Your task to perform on an android device: set an alarm Image 0: 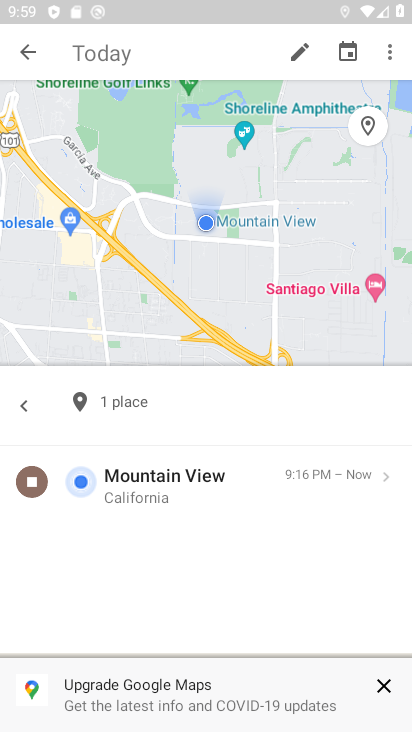
Step 0: press back button
Your task to perform on an android device: set an alarm Image 1: 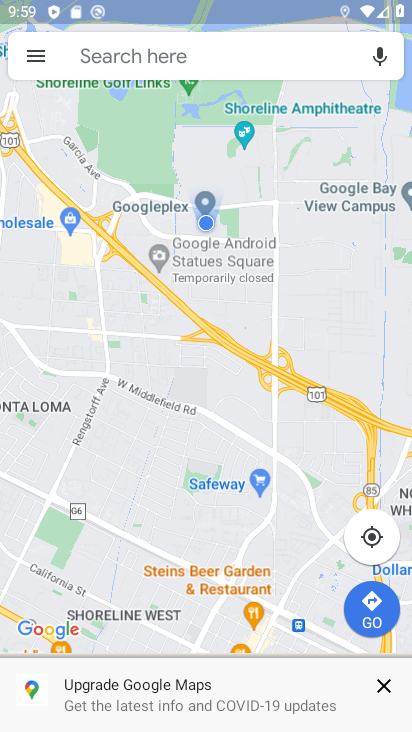
Step 1: press home button
Your task to perform on an android device: set an alarm Image 2: 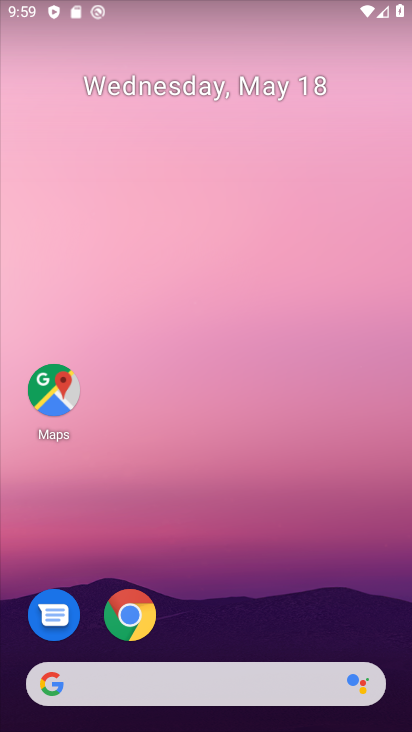
Step 2: drag from (148, 658) to (211, 246)
Your task to perform on an android device: set an alarm Image 3: 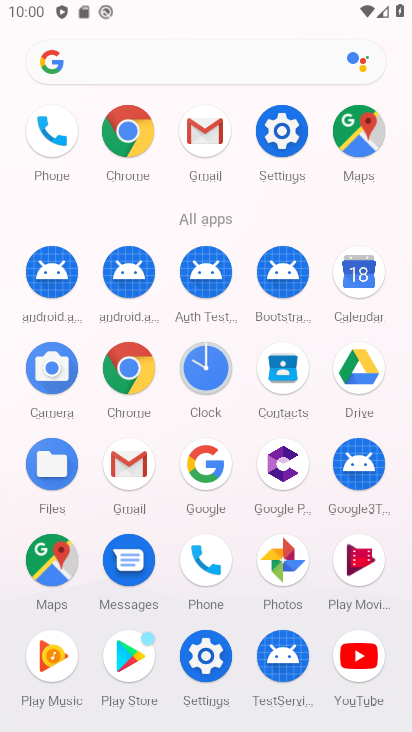
Step 3: click (208, 374)
Your task to perform on an android device: set an alarm Image 4: 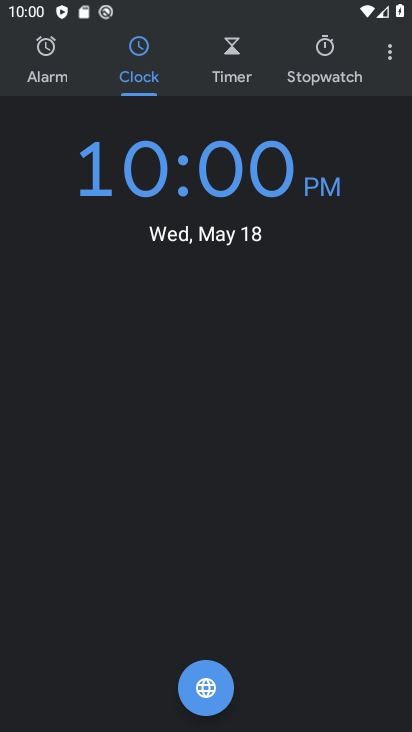
Step 4: click (34, 63)
Your task to perform on an android device: set an alarm Image 5: 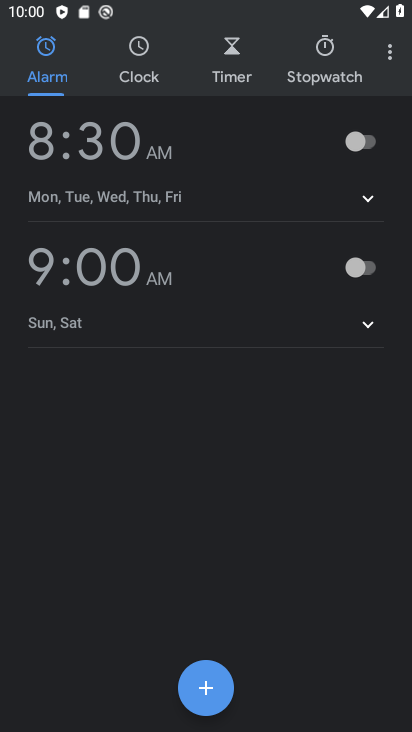
Step 5: click (369, 153)
Your task to perform on an android device: set an alarm Image 6: 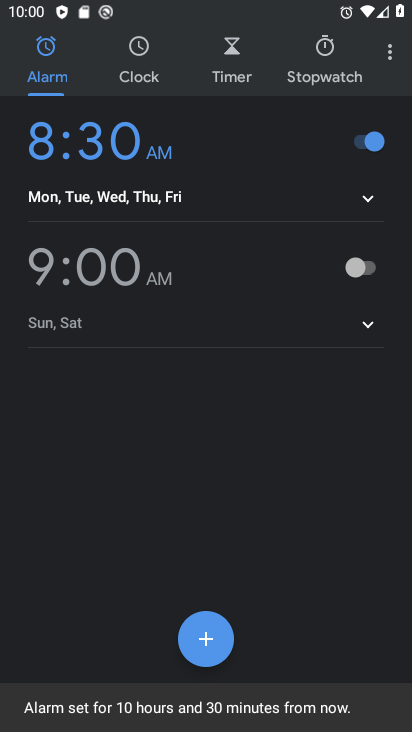
Step 6: task complete